Your task to perform on an android device: Open Chrome and go to settings Image 0: 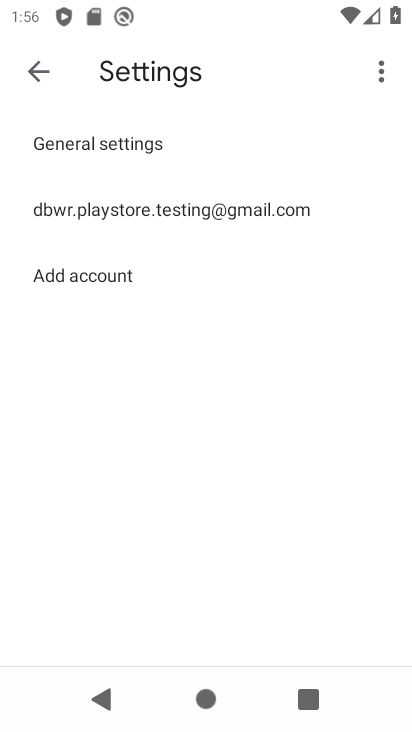
Step 0: press back button
Your task to perform on an android device: Open Chrome and go to settings Image 1: 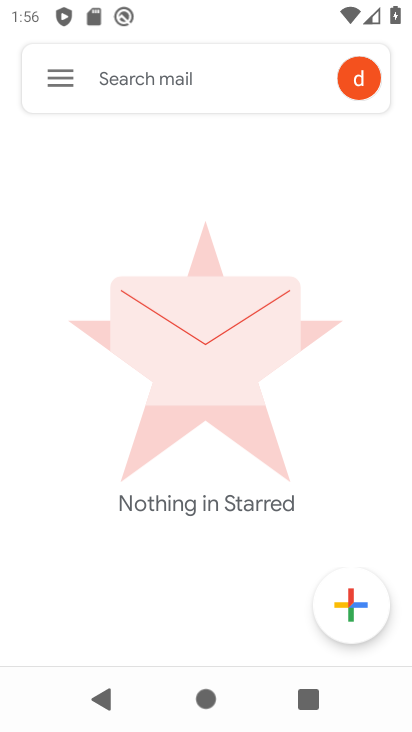
Step 1: press back button
Your task to perform on an android device: Open Chrome and go to settings Image 2: 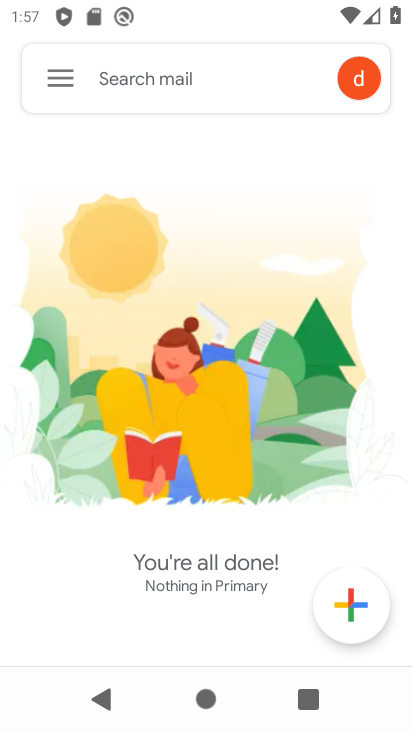
Step 2: press home button
Your task to perform on an android device: Open Chrome and go to settings Image 3: 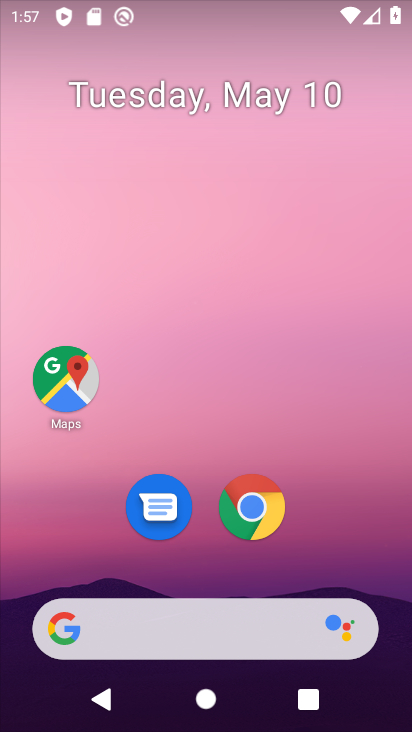
Step 3: drag from (335, 550) to (162, 8)
Your task to perform on an android device: Open Chrome and go to settings Image 4: 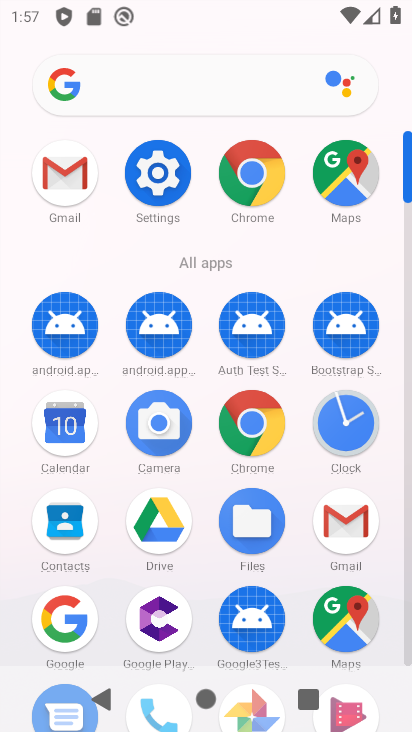
Step 4: click (242, 174)
Your task to perform on an android device: Open Chrome and go to settings Image 5: 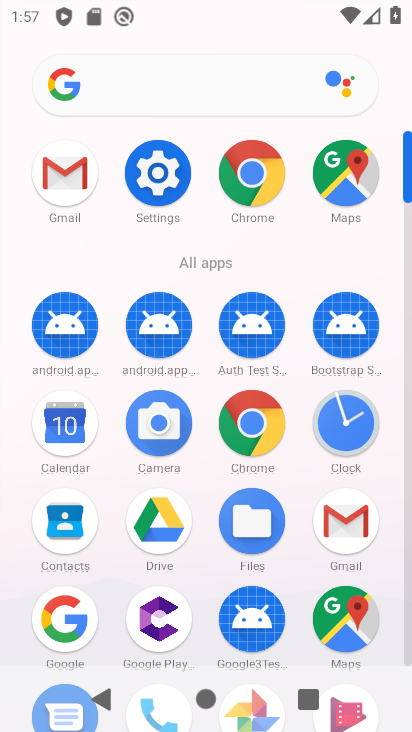
Step 5: click (244, 173)
Your task to perform on an android device: Open Chrome and go to settings Image 6: 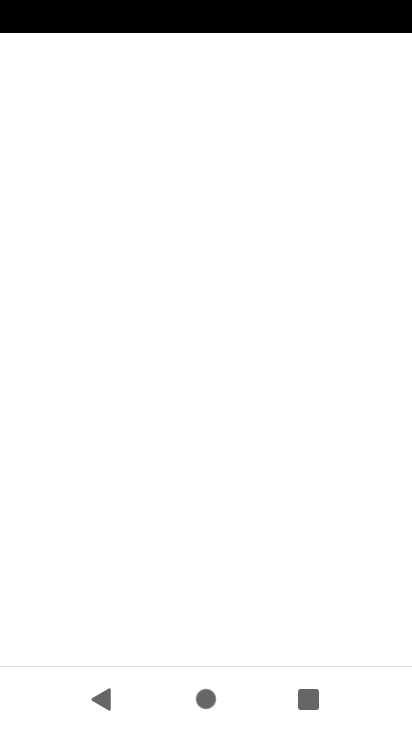
Step 6: click (244, 173)
Your task to perform on an android device: Open Chrome and go to settings Image 7: 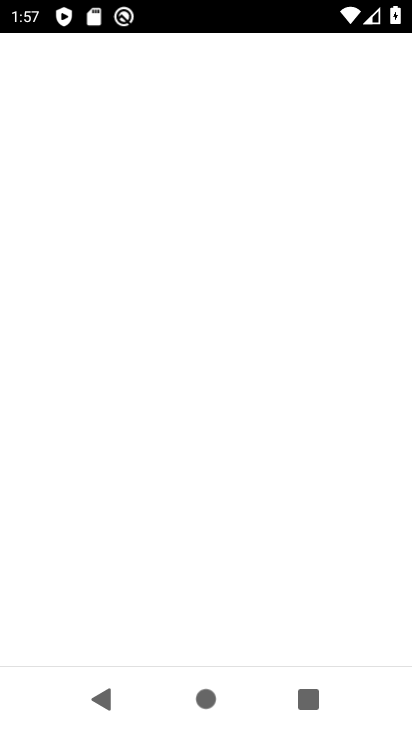
Step 7: click (245, 173)
Your task to perform on an android device: Open Chrome and go to settings Image 8: 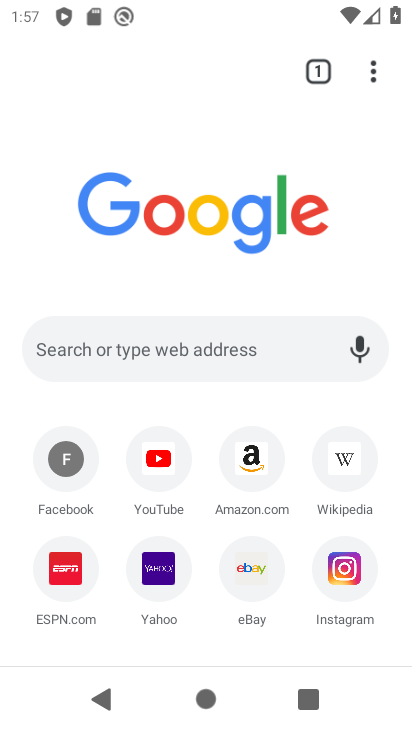
Step 8: drag from (372, 69) to (110, 509)
Your task to perform on an android device: Open Chrome and go to settings Image 9: 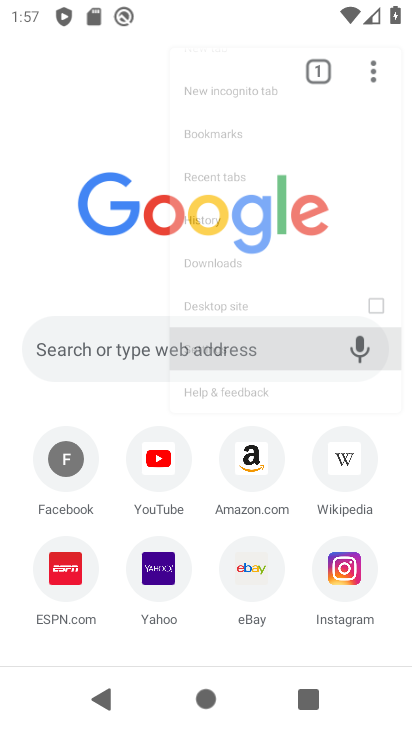
Step 9: click (110, 509)
Your task to perform on an android device: Open Chrome and go to settings Image 10: 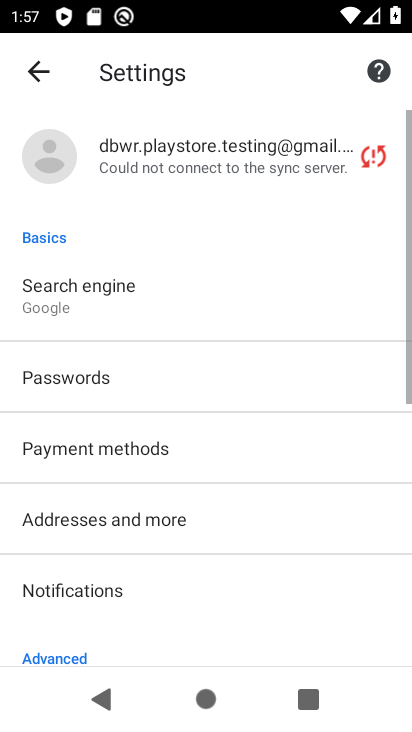
Step 10: task complete